Your task to perform on an android device: Open the Play Movies app and select the watchlist tab. Image 0: 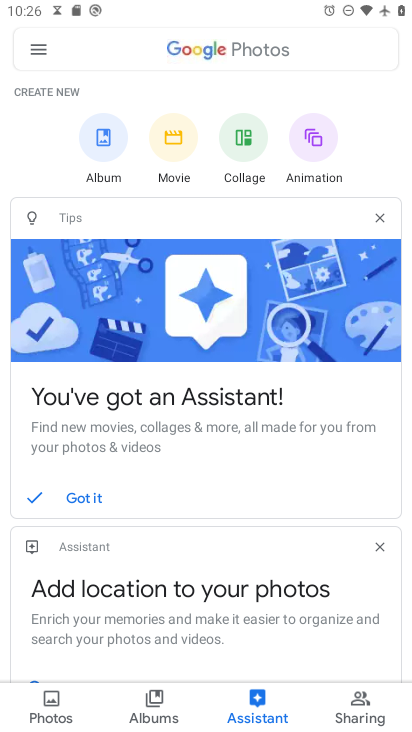
Step 0: press home button
Your task to perform on an android device: Open the Play Movies app and select the watchlist tab. Image 1: 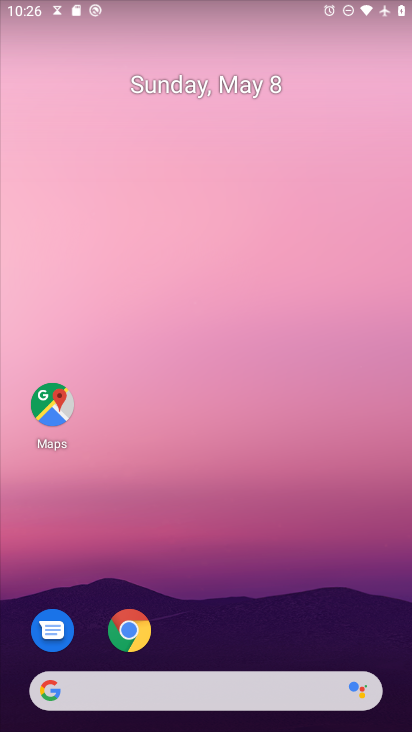
Step 1: drag from (199, 692) to (406, 196)
Your task to perform on an android device: Open the Play Movies app and select the watchlist tab. Image 2: 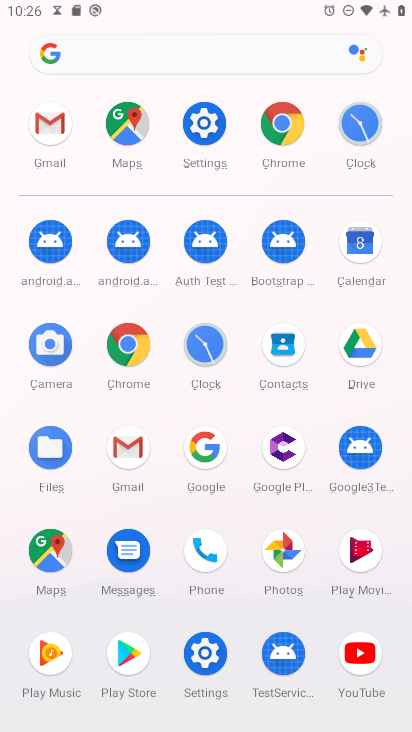
Step 2: click (350, 543)
Your task to perform on an android device: Open the Play Movies app and select the watchlist tab. Image 3: 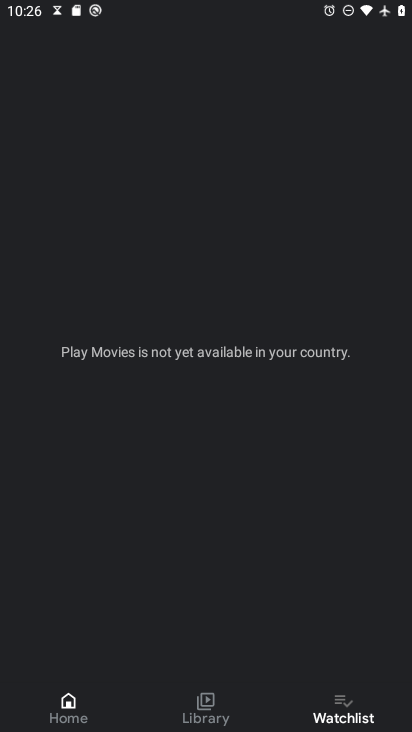
Step 3: task complete